Your task to perform on an android device: check storage Image 0: 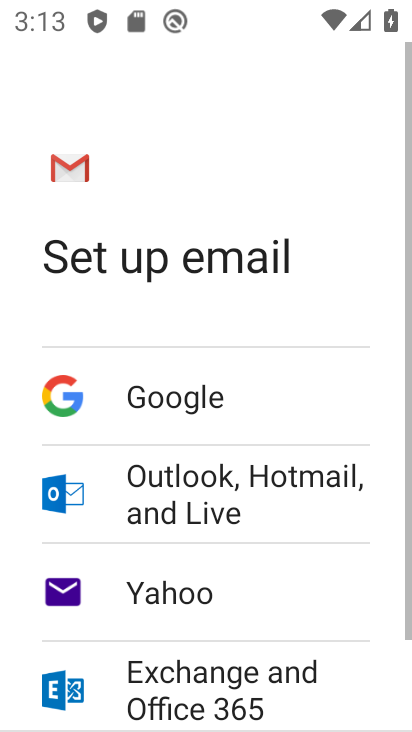
Step 0: press home button
Your task to perform on an android device: check storage Image 1: 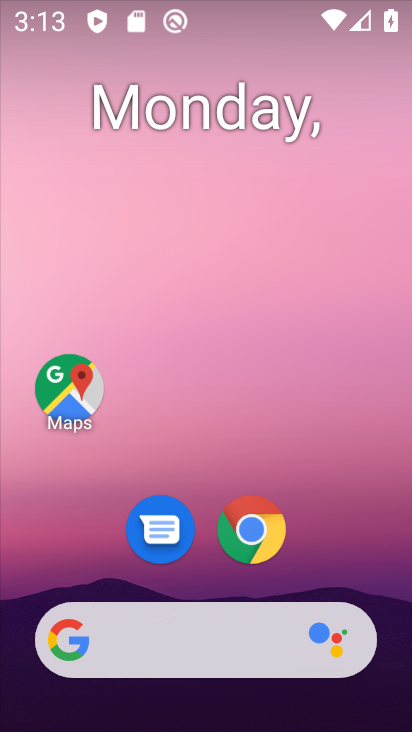
Step 1: drag from (183, 326) to (306, 6)
Your task to perform on an android device: check storage Image 2: 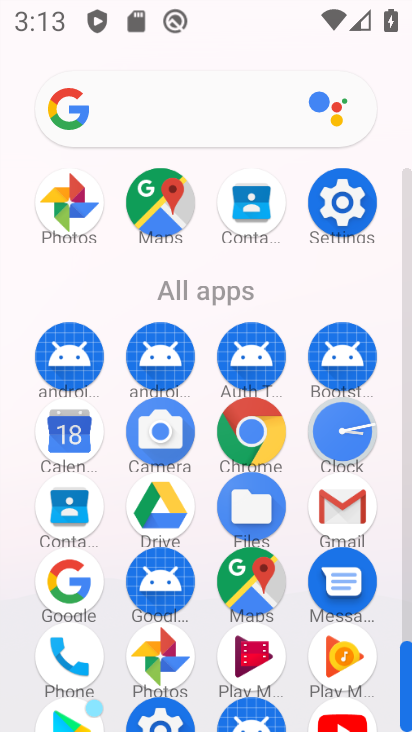
Step 2: click (353, 199)
Your task to perform on an android device: check storage Image 3: 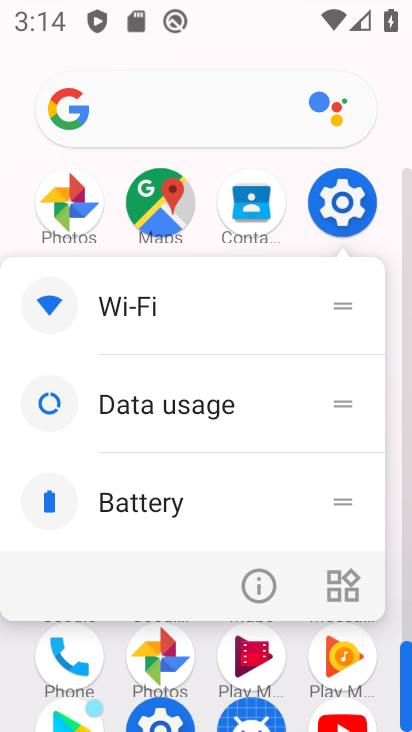
Step 3: click (336, 199)
Your task to perform on an android device: check storage Image 4: 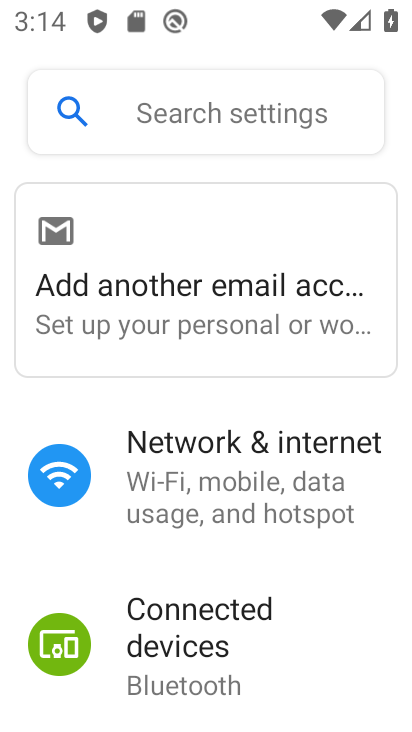
Step 4: drag from (183, 559) to (318, 6)
Your task to perform on an android device: check storage Image 5: 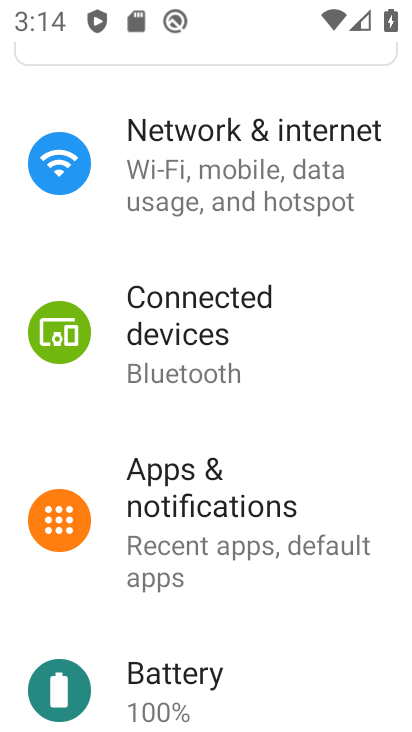
Step 5: drag from (183, 543) to (270, 1)
Your task to perform on an android device: check storage Image 6: 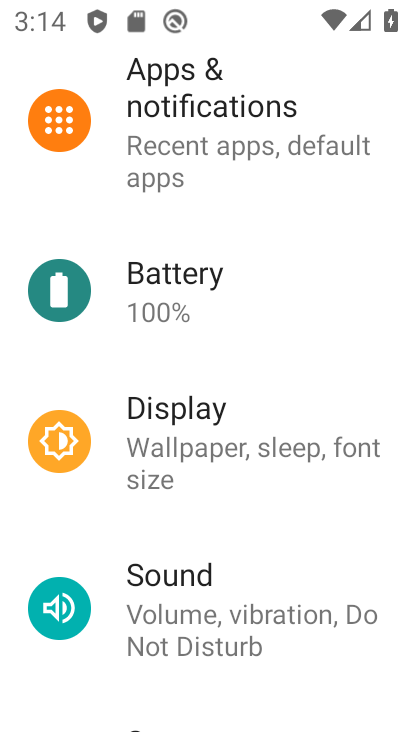
Step 6: drag from (161, 576) to (298, 0)
Your task to perform on an android device: check storage Image 7: 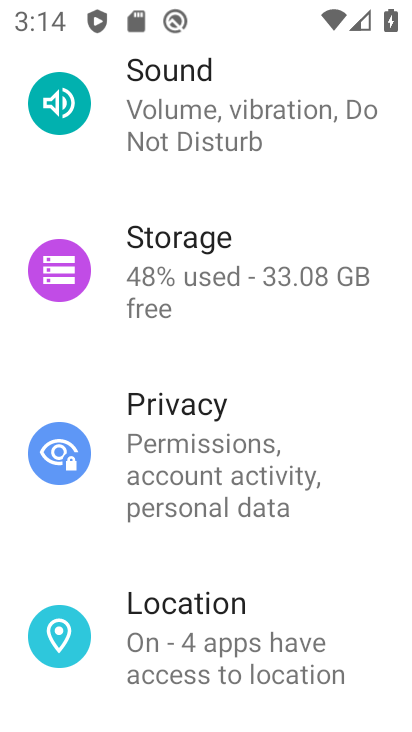
Step 7: drag from (200, 518) to (218, 409)
Your task to perform on an android device: check storage Image 8: 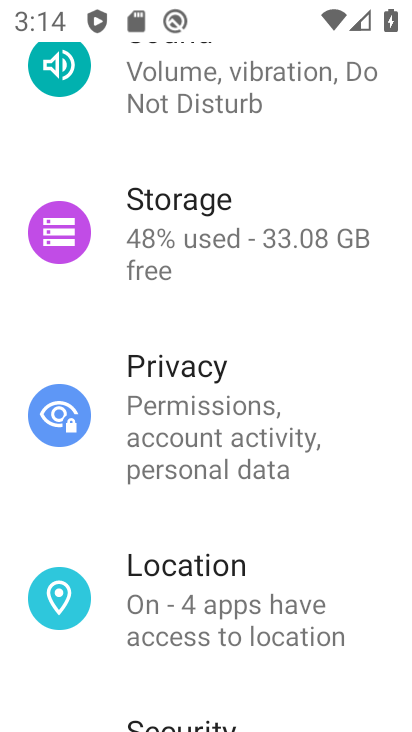
Step 8: click (198, 248)
Your task to perform on an android device: check storage Image 9: 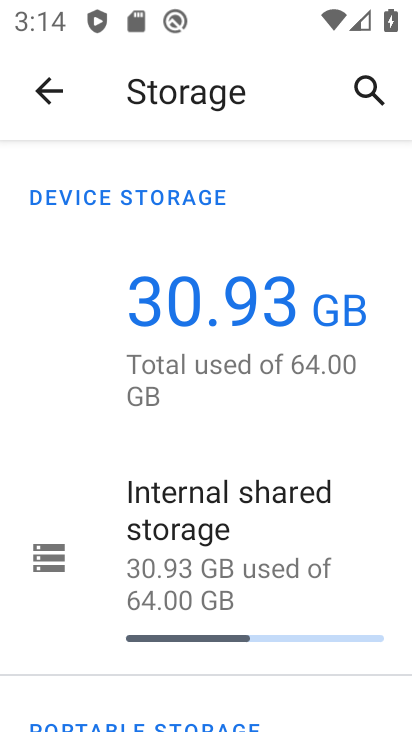
Step 9: click (193, 532)
Your task to perform on an android device: check storage Image 10: 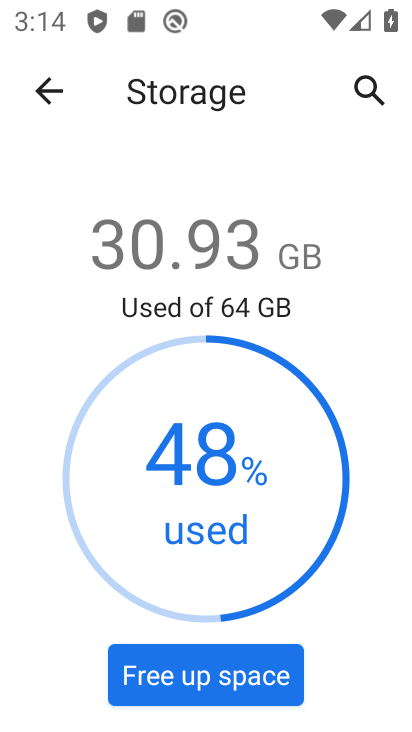
Step 10: task complete